Your task to perform on an android device: Open settings on Google Maps Image 0: 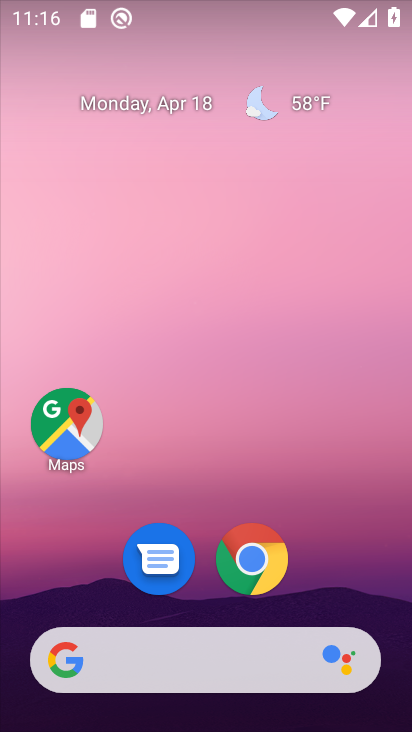
Step 0: click (83, 413)
Your task to perform on an android device: Open settings on Google Maps Image 1: 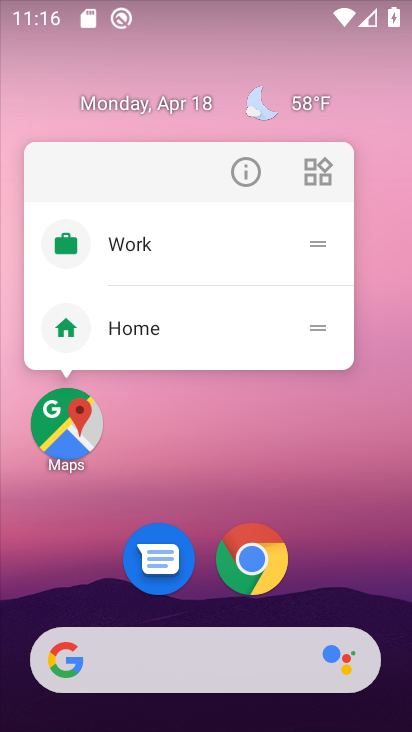
Step 1: click (80, 418)
Your task to perform on an android device: Open settings on Google Maps Image 2: 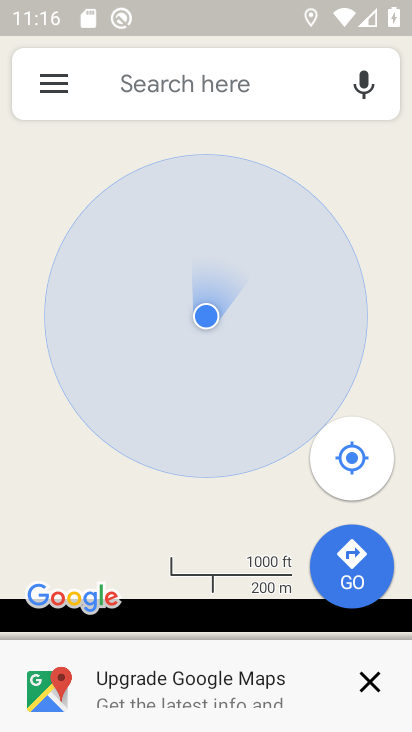
Step 2: click (44, 88)
Your task to perform on an android device: Open settings on Google Maps Image 3: 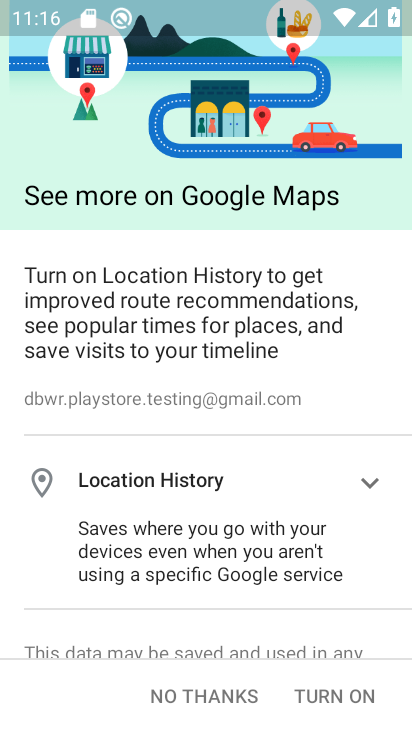
Step 3: click (214, 693)
Your task to perform on an android device: Open settings on Google Maps Image 4: 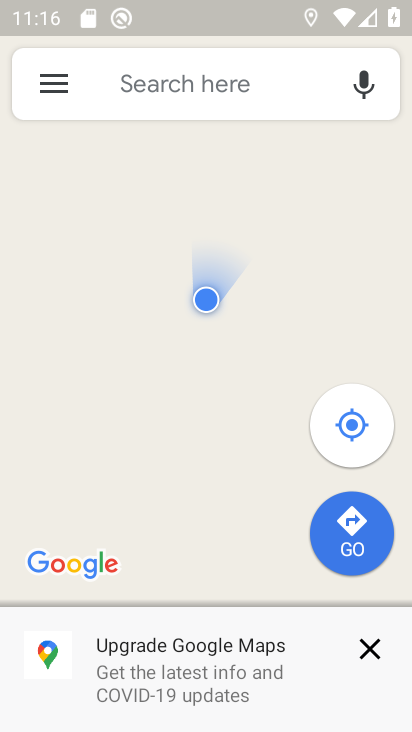
Step 4: click (45, 82)
Your task to perform on an android device: Open settings on Google Maps Image 5: 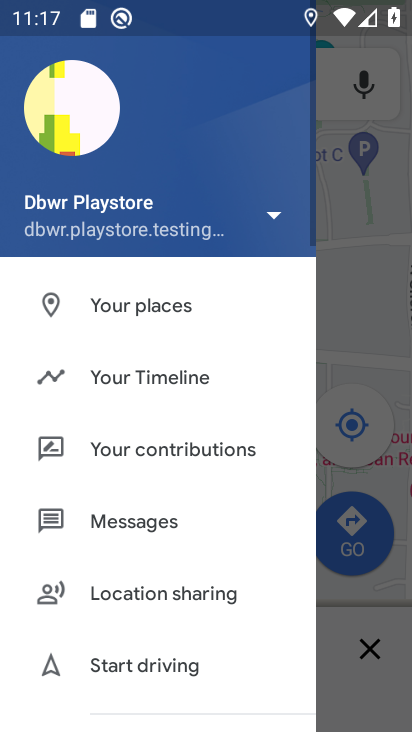
Step 5: drag from (120, 661) to (123, 171)
Your task to perform on an android device: Open settings on Google Maps Image 6: 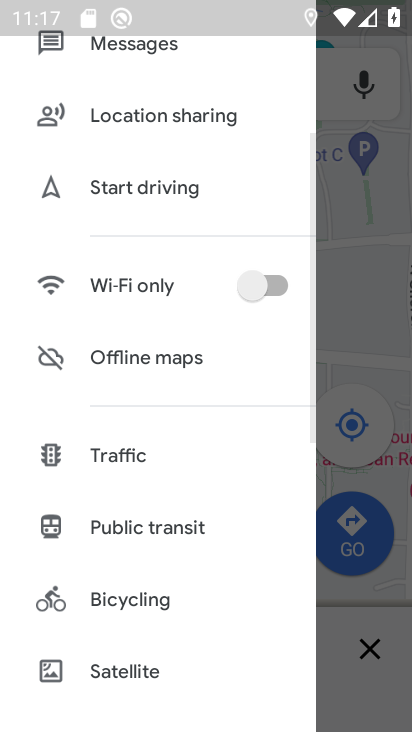
Step 6: drag from (153, 659) to (170, 213)
Your task to perform on an android device: Open settings on Google Maps Image 7: 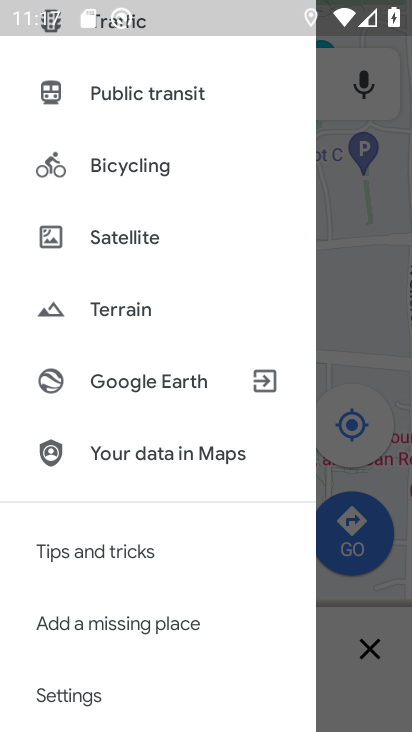
Step 7: click (76, 700)
Your task to perform on an android device: Open settings on Google Maps Image 8: 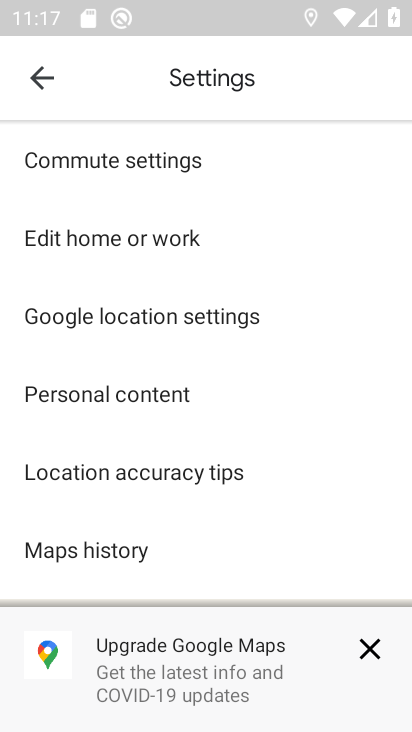
Step 8: drag from (170, 580) to (193, 230)
Your task to perform on an android device: Open settings on Google Maps Image 9: 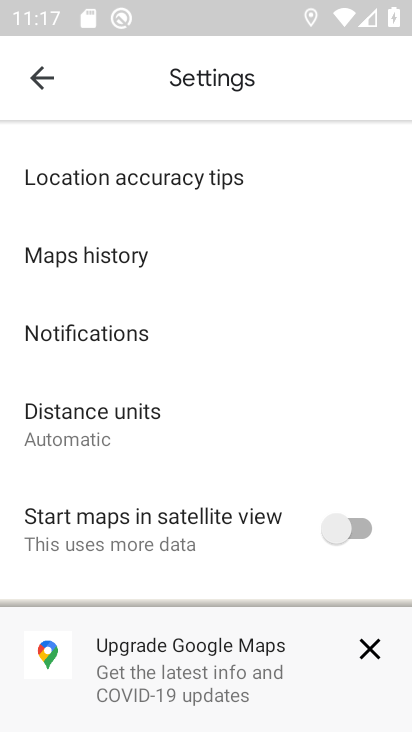
Step 9: drag from (160, 555) to (160, 178)
Your task to perform on an android device: Open settings on Google Maps Image 10: 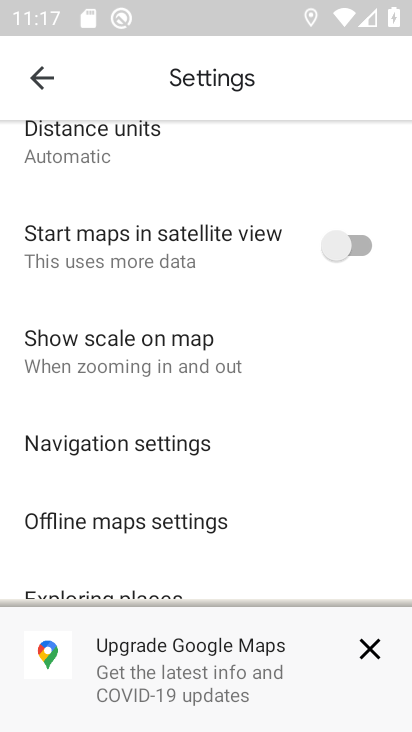
Step 10: drag from (168, 566) to (188, 199)
Your task to perform on an android device: Open settings on Google Maps Image 11: 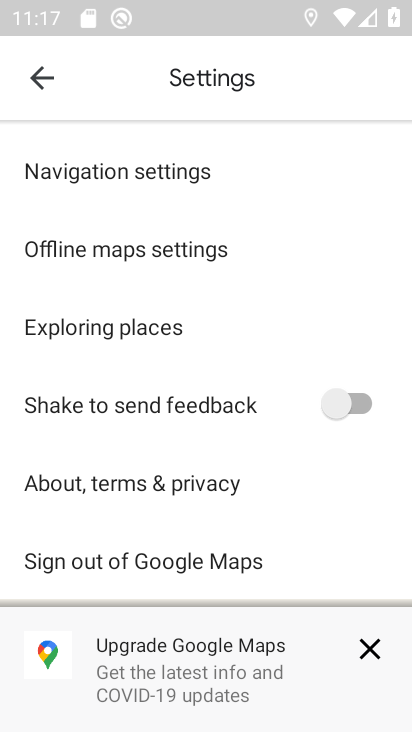
Step 11: drag from (168, 544) to (226, 163)
Your task to perform on an android device: Open settings on Google Maps Image 12: 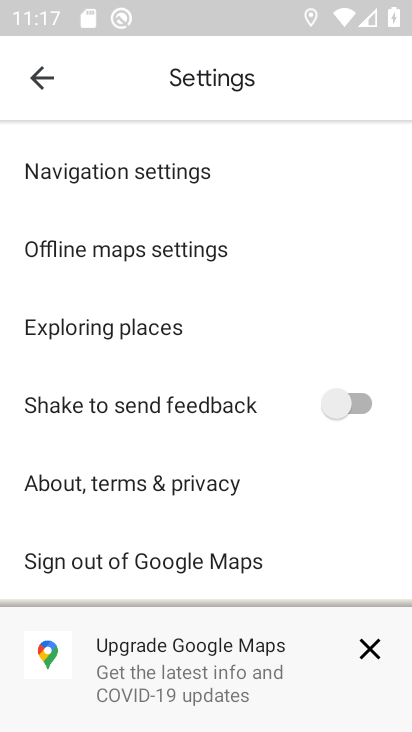
Step 12: click (373, 649)
Your task to perform on an android device: Open settings on Google Maps Image 13: 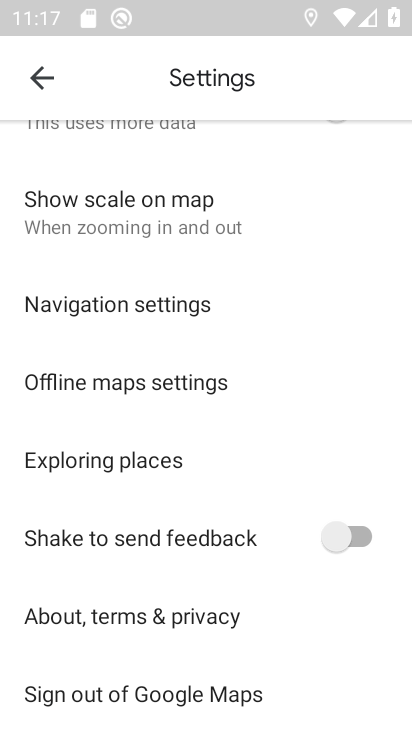
Step 13: task complete